Your task to perform on an android device: change the clock display to analog Image 0: 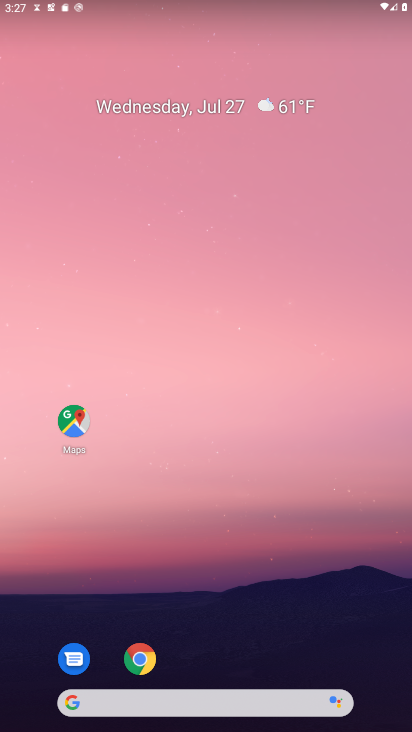
Step 0: drag from (249, 708) to (192, 263)
Your task to perform on an android device: change the clock display to analog Image 1: 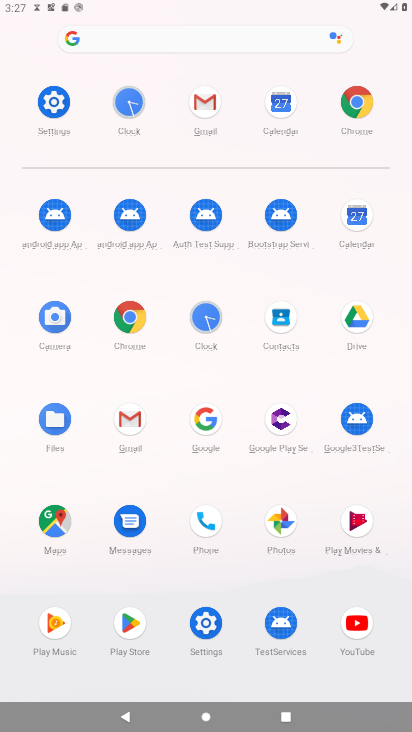
Step 1: click (199, 317)
Your task to perform on an android device: change the clock display to analog Image 2: 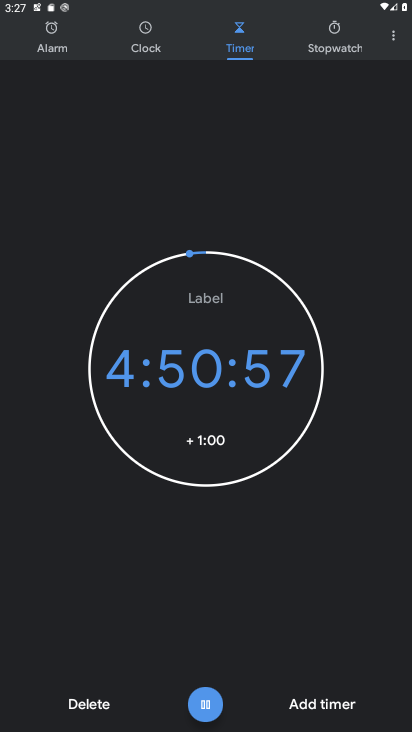
Step 2: click (397, 39)
Your task to perform on an android device: change the clock display to analog Image 3: 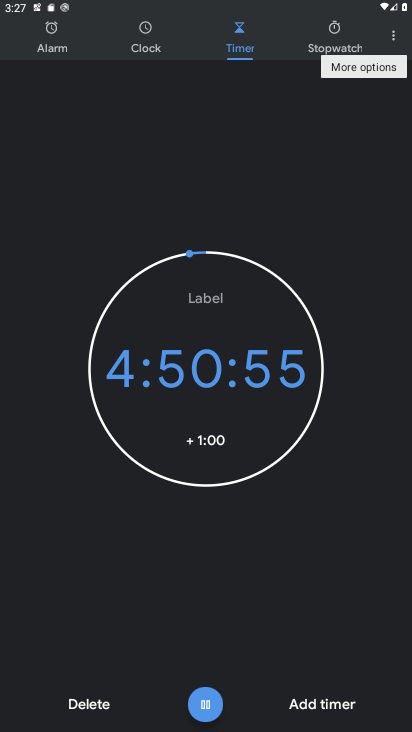
Step 3: click (394, 43)
Your task to perform on an android device: change the clock display to analog Image 4: 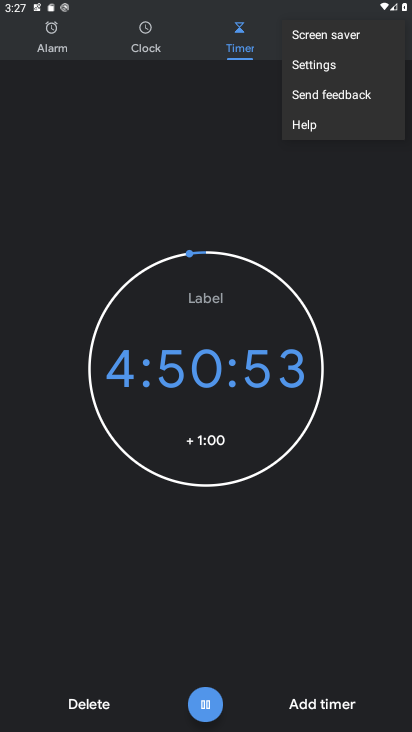
Step 4: click (333, 66)
Your task to perform on an android device: change the clock display to analog Image 5: 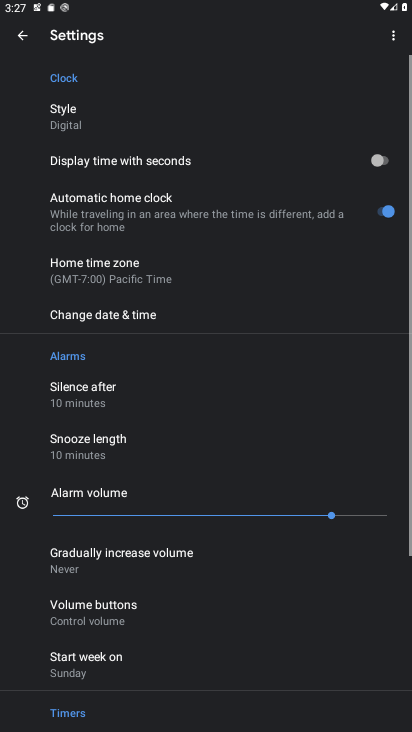
Step 5: click (91, 128)
Your task to perform on an android device: change the clock display to analog Image 6: 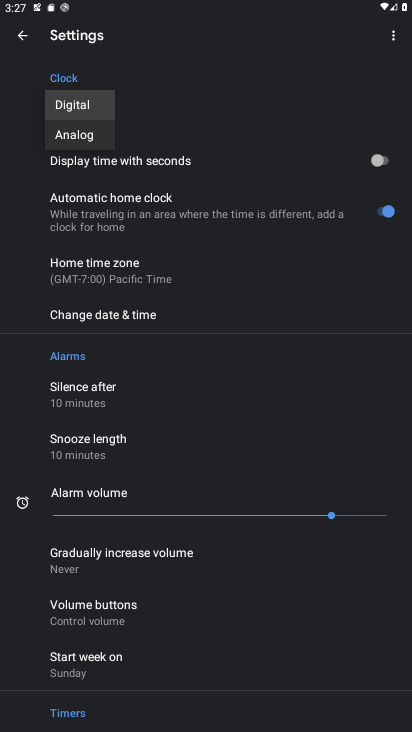
Step 6: click (88, 143)
Your task to perform on an android device: change the clock display to analog Image 7: 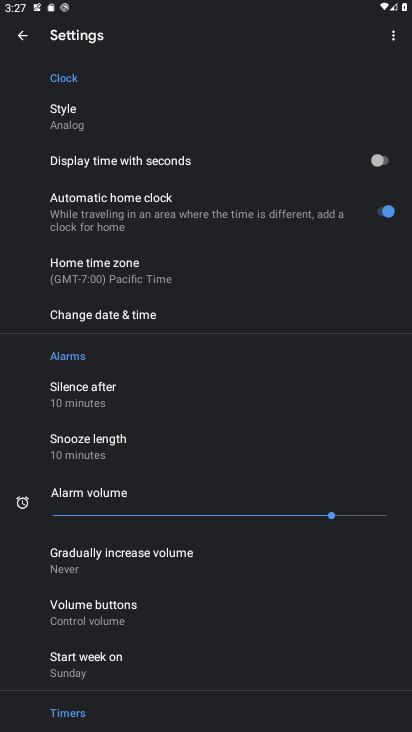
Step 7: task complete